Your task to perform on an android device: change the clock display to show seconds Image 0: 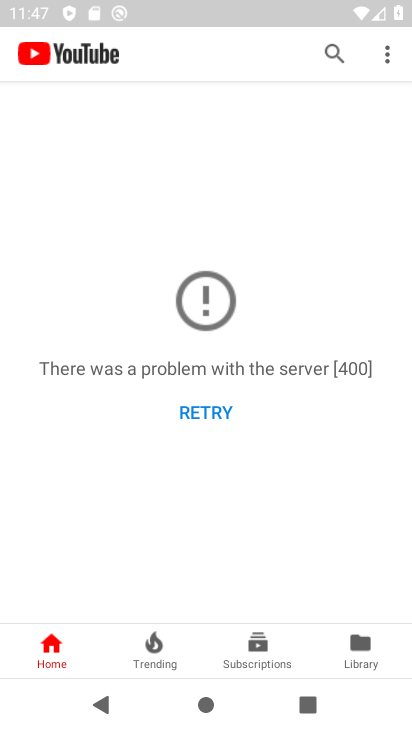
Step 0: press home button
Your task to perform on an android device: change the clock display to show seconds Image 1: 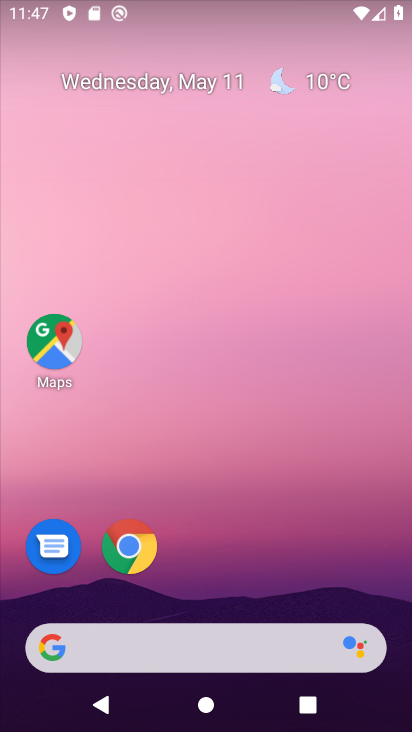
Step 1: drag from (205, 594) to (261, 191)
Your task to perform on an android device: change the clock display to show seconds Image 2: 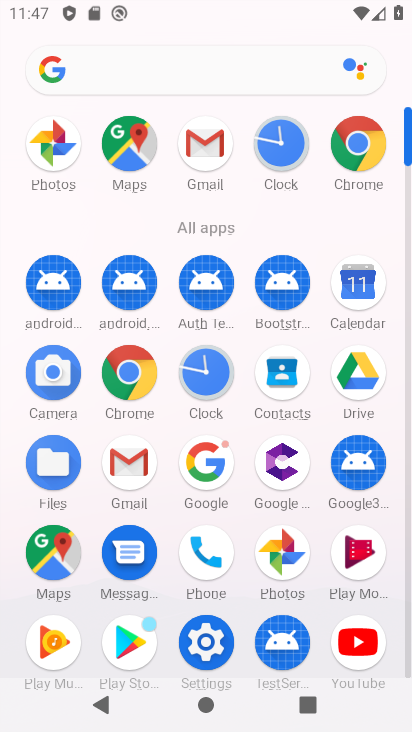
Step 2: click (212, 370)
Your task to perform on an android device: change the clock display to show seconds Image 3: 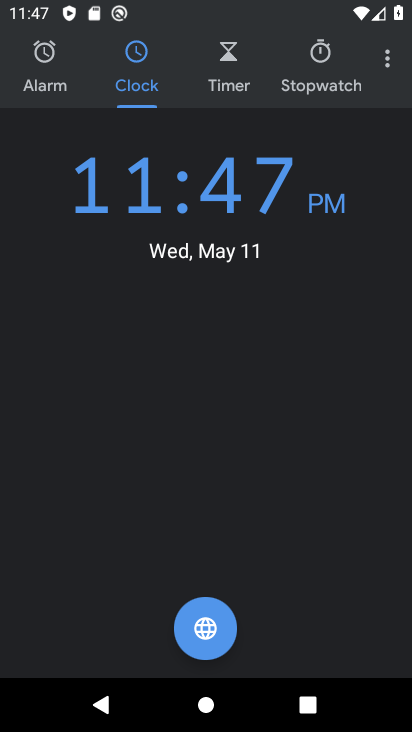
Step 3: click (389, 63)
Your task to perform on an android device: change the clock display to show seconds Image 4: 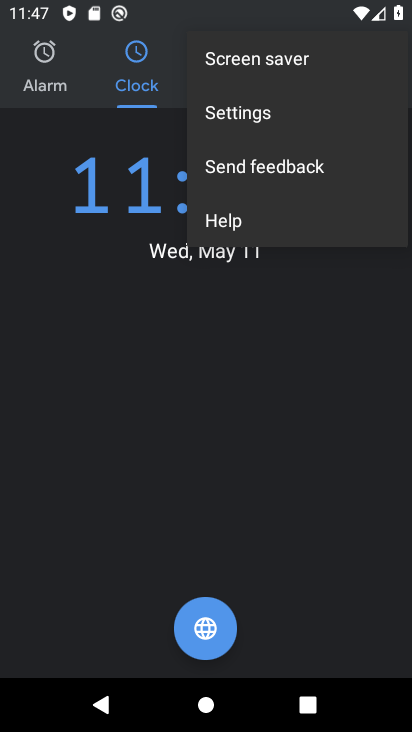
Step 4: click (271, 111)
Your task to perform on an android device: change the clock display to show seconds Image 5: 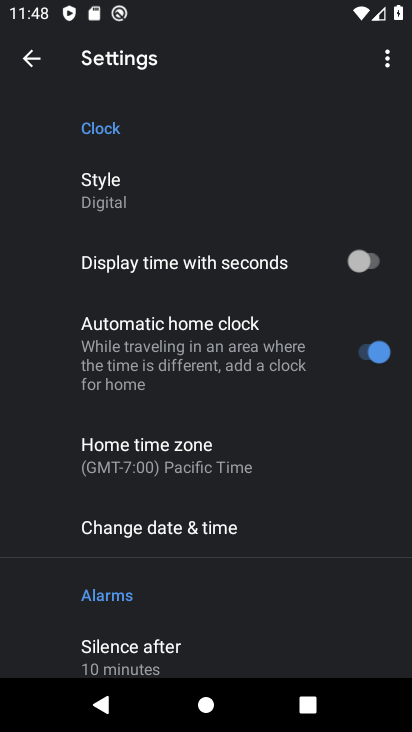
Step 5: click (380, 263)
Your task to perform on an android device: change the clock display to show seconds Image 6: 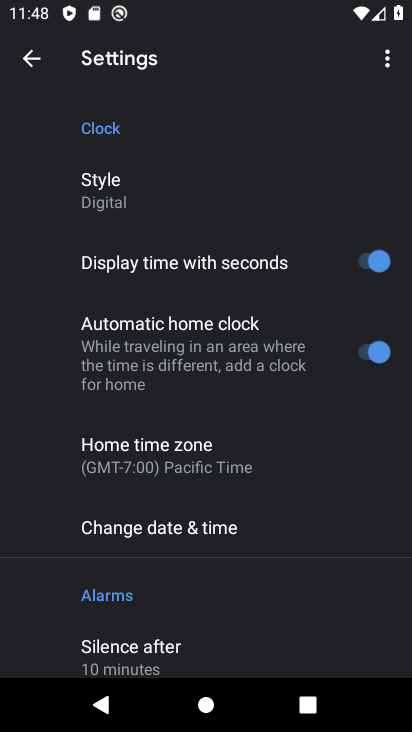
Step 6: task complete